Your task to perform on an android device: Search for sushi restaurants on Maps Image 0: 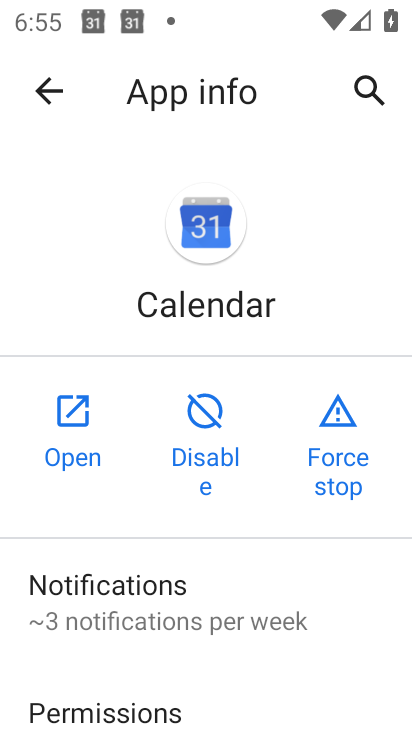
Step 0: press home button
Your task to perform on an android device: Search for sushi restaurants on Maps Image 1: 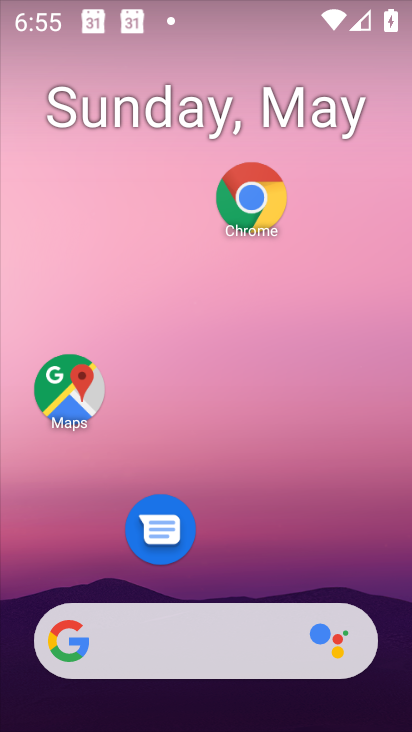
Step 1: click (71, 394)
Your task to perform on an android device: Search for sushi restaurants on Maps Image 2: 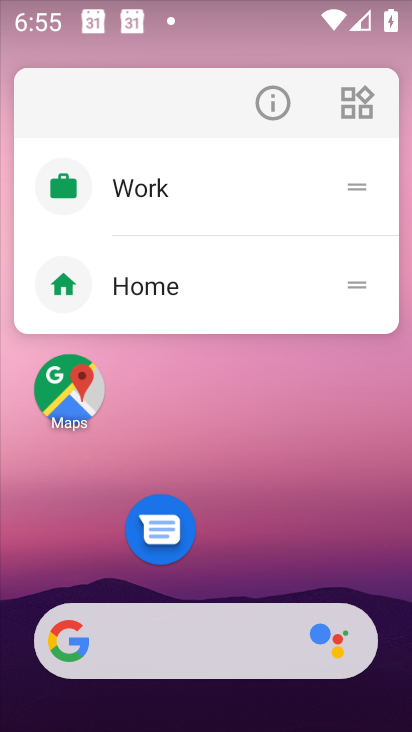
Step 2: click (72, 395)
Your task to perform on an android device: Search for sushi restaurants on Maps Image 3: 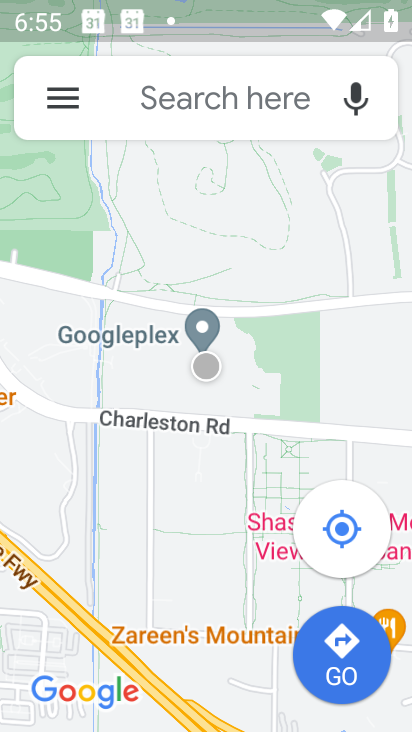
Step 3: click (208, 96)
Your task to perform on an android device: Search for sushi restaurants on Maps Image 4: 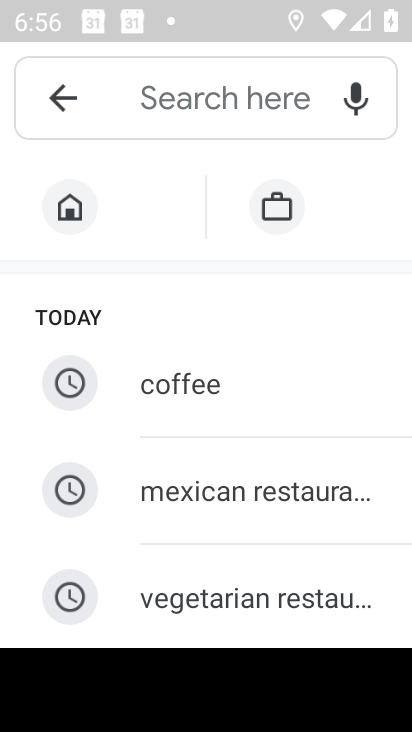
Step 4: type "sushi restaurants"
Your task to perform on an android device: Search for sushi restaurants on Maps Image 5: 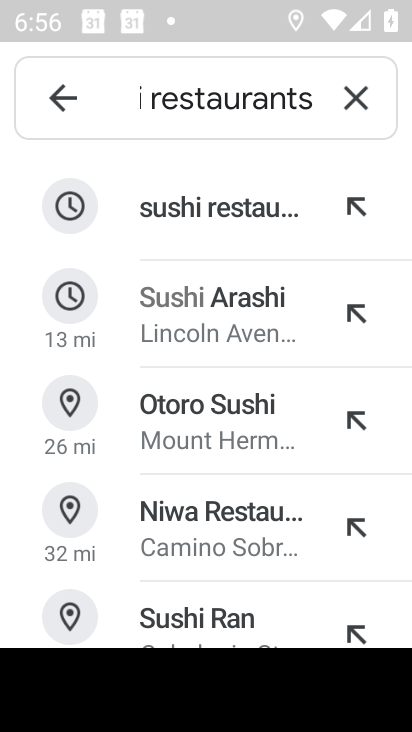
Step 5: click (194, 214)
Your task to perform on an android device: Search for sushi restaurants on Maps Image 6: 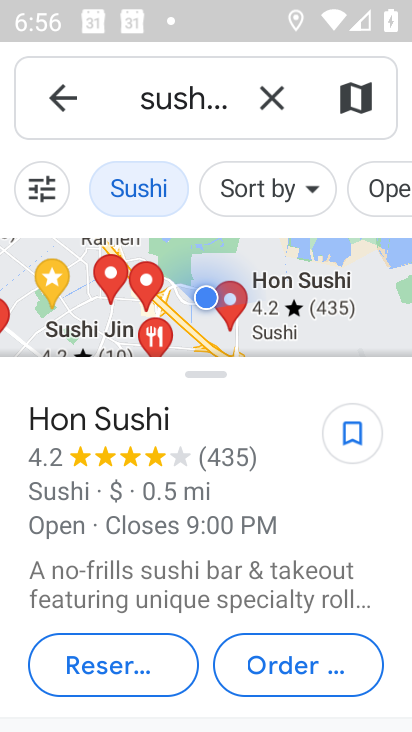
Step 6: task complete